Your task to perform on an android device: set default search engine in the chrome app Image 0: 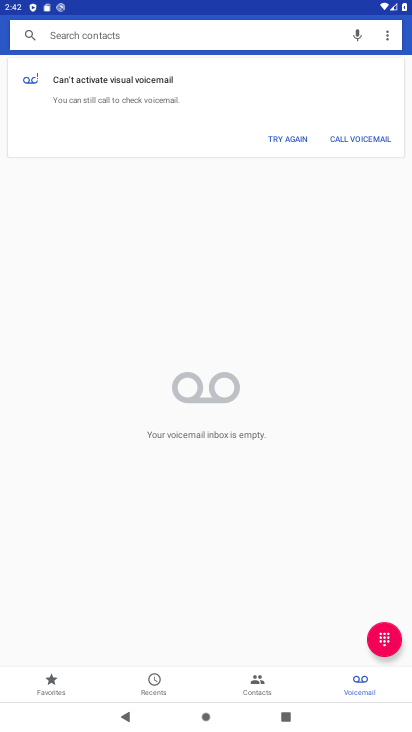
Step 0: press home button
Your task to perform on an android device: set default search engine in the chrome app Image 1: 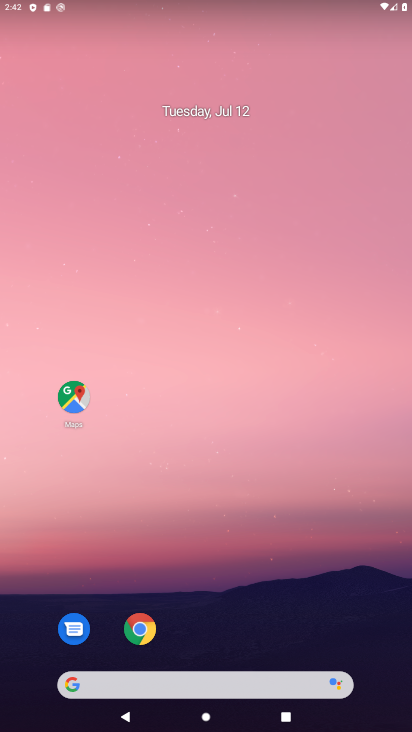
Step 1: click (143, 628)
Your task to perform on an android device: set default search engine in the chrome app Image 2: 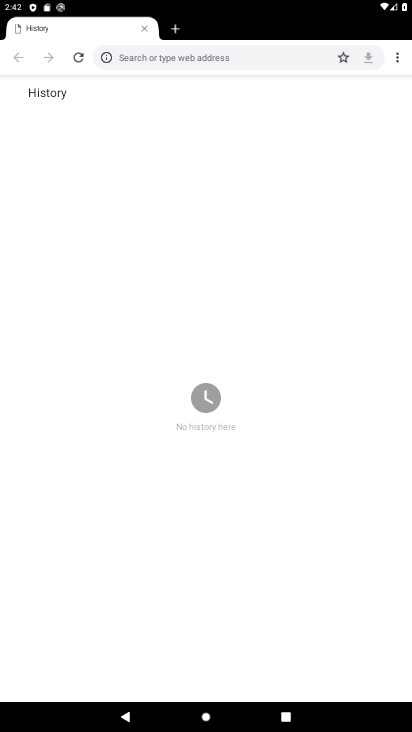
Step 2: click (397, 59)
Your task to perform on an android device: set default search engine in the chrome app Image 3: 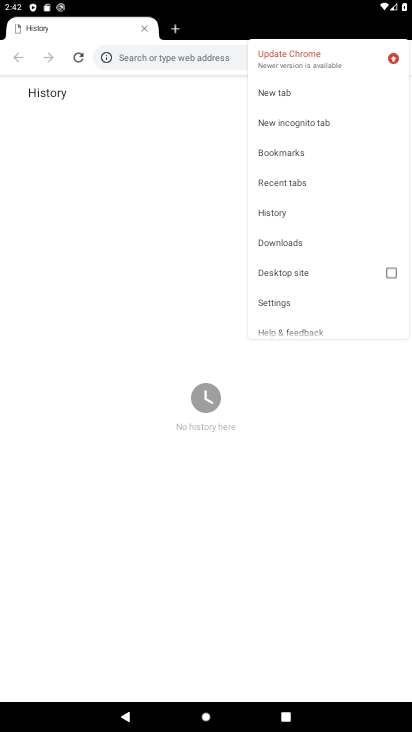
Step 3: click (303, 303)
Your task to perform on an android device: set default search engine in the chrome app Image 4: 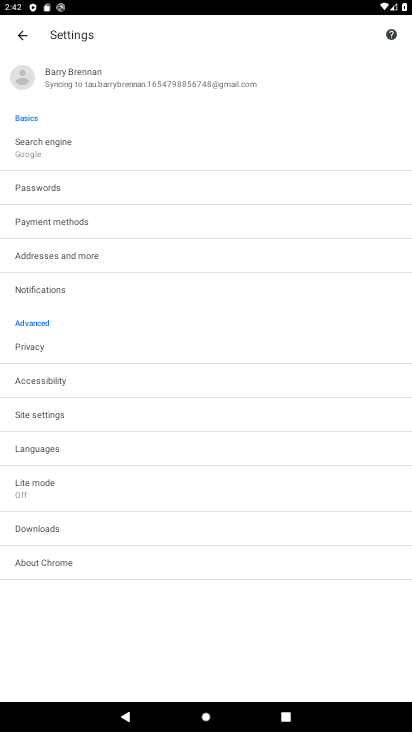
Step 4: click (50, 138)
Your task to perform on an android device: set default search engine in the chrome app Image 5: 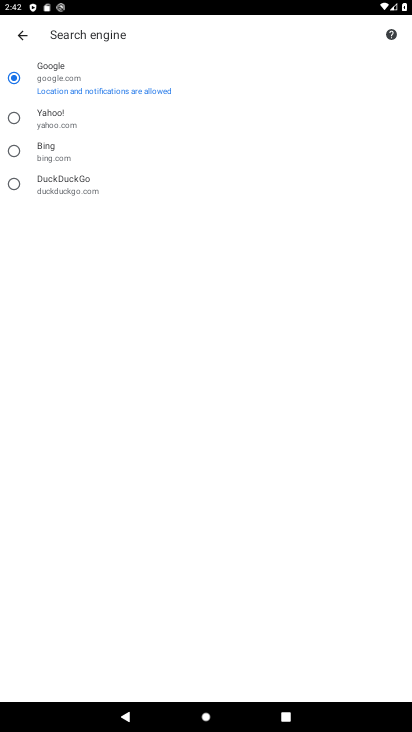
Step 5: click (14, 121)
Your task to perform on an android device: set default search engine in the chrome app Image 6: 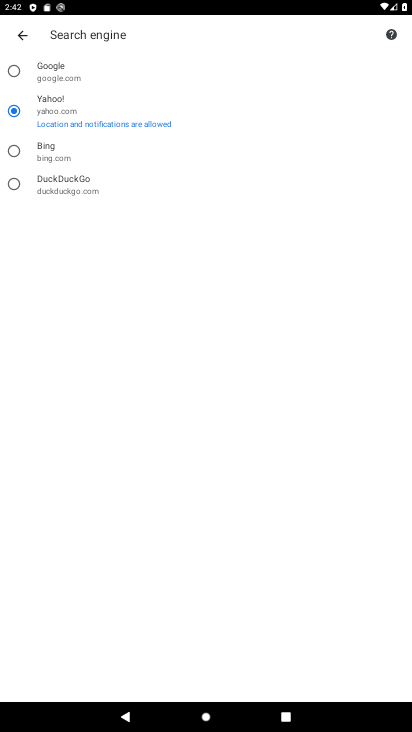
Step 6: task complete